Your task to perform on an android device: set the stopwatch Image 0: 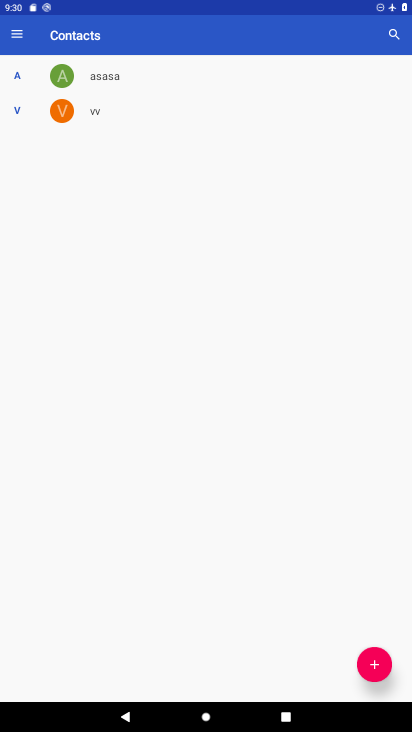
Step 0: press home button
Your task to perform on an android device: set the stopwatch Image 1: 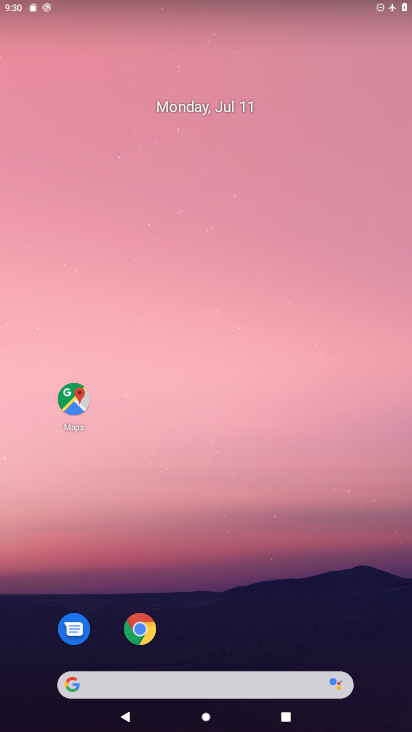
Step 1: drag from (199, 631) to (182, 102)
Your task to perform on an android device: set the stopwatch Image 2: 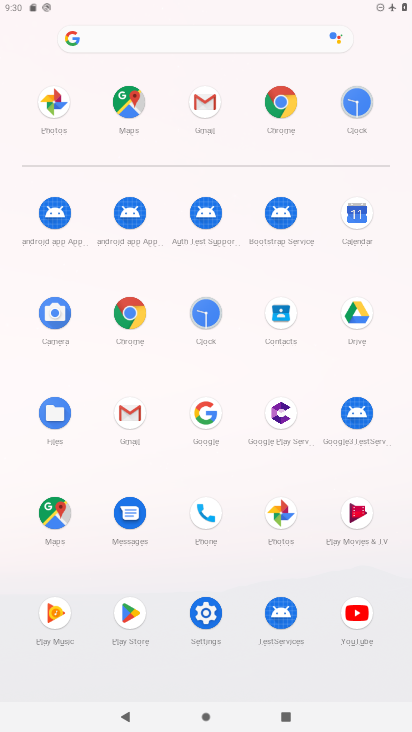
Step 2: click (361, 111)
Your task to perform on an android device: set the stopwatch Image 3: 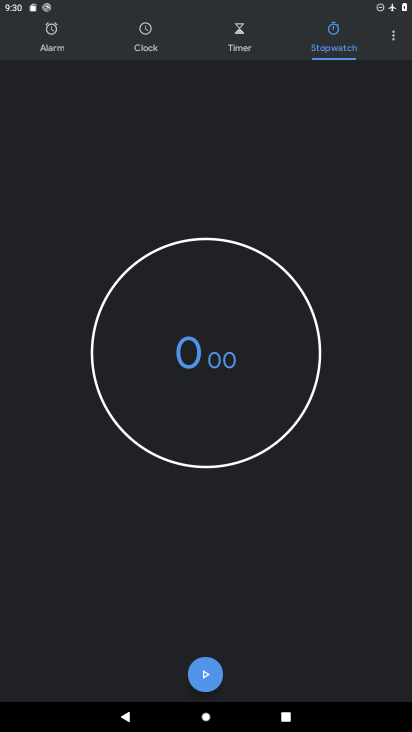
Step 3: click (209, 678)
Your task to perform on an android device: set the stopwatch Image 4: 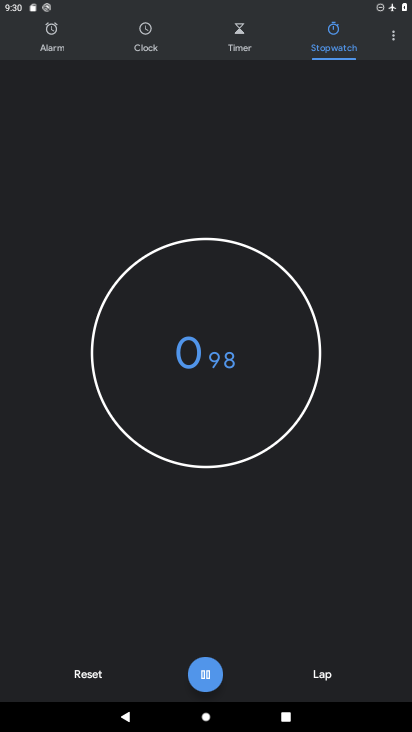
Step 4: task complete